Your task to perform on an android device: check out phone information Image 0: 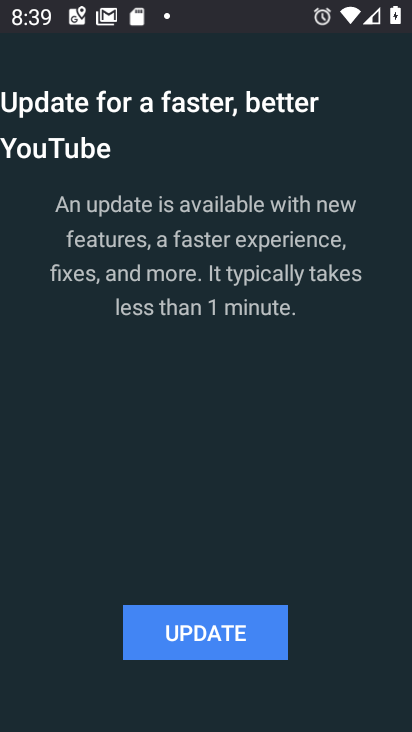
Step 0: press home button
Your task to perform on an android device: check out phone information Image 1: 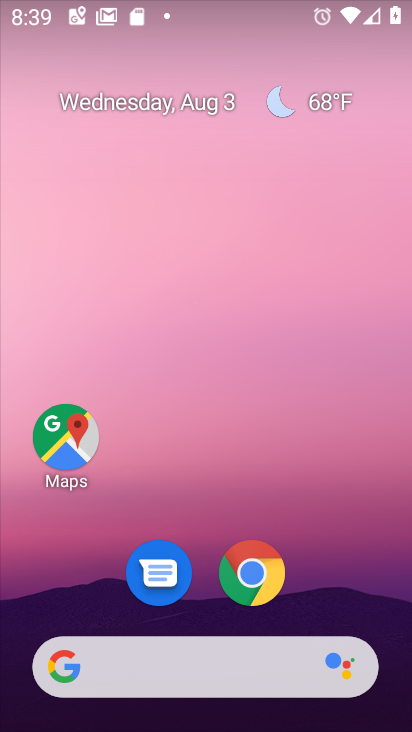
Step 1: drag from (324, 623) to (321, 4)
Your task to perform on an android device: check out phone information Image 2: 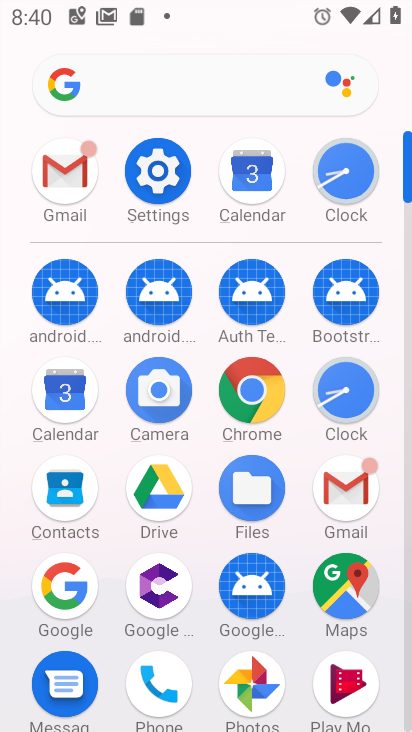
Step 2: click (153, 179)
Your task to perform on an android device: check out phone information Image 3: 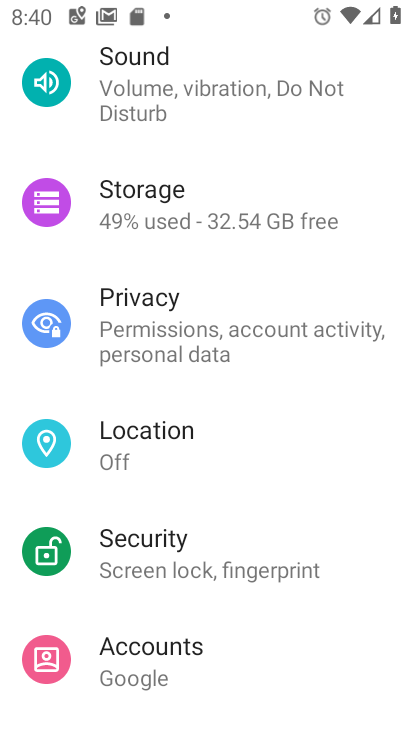
Step 3: drag from (340, 651) to (278, 47)
Your task to perform on an android device: check out phone information Image 4: 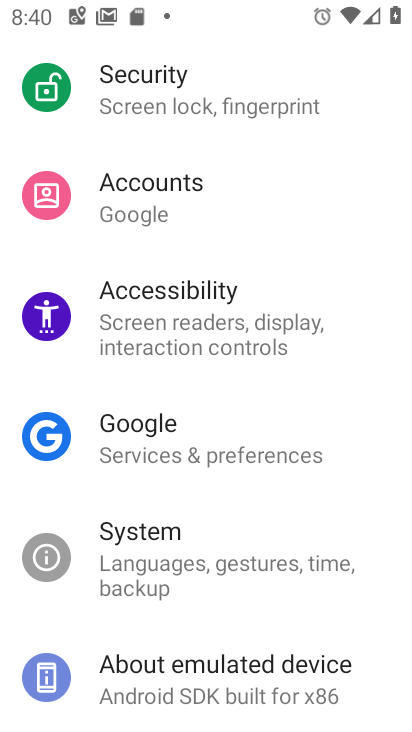
Step 4: click (226, 672)
Your task to perform on an android device: check out phone information Image 5: 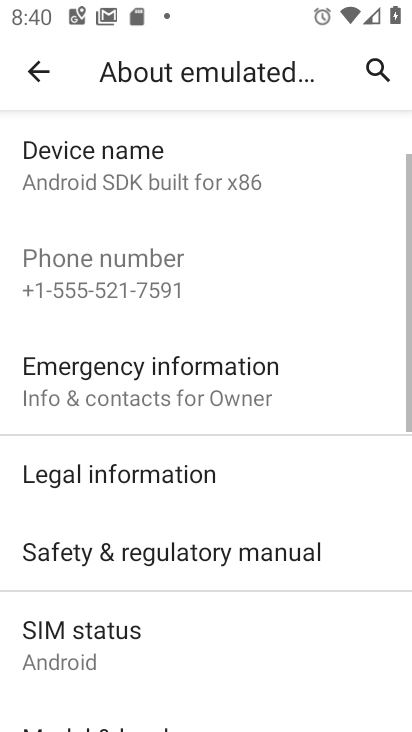
Step 5: task complete